Your task to perform on an android device: turn off improve location accuracy Image 0: 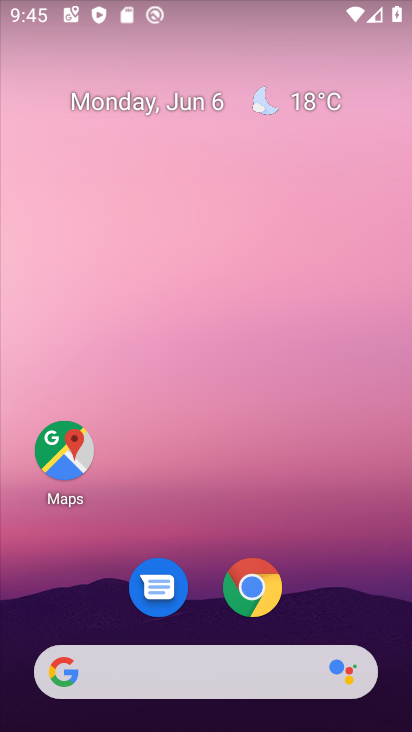
Step 0: drag from (343, 539) to (253, 110)
Your task to perform on an android device: turn off improve location accuracy Image 1: 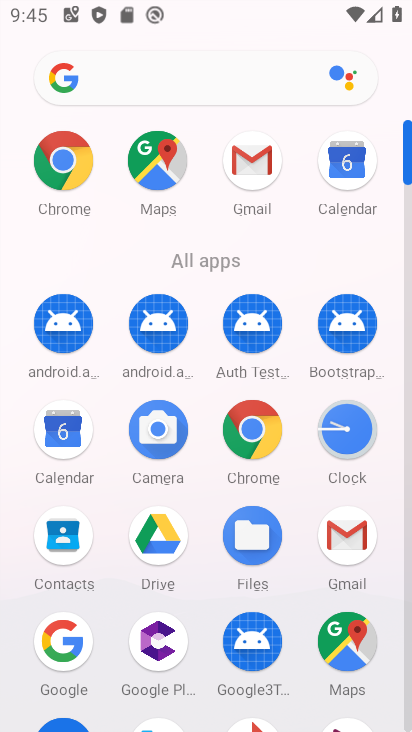
Step 1: click (406, 564)
Your task to perform on an android device: turn off improve location accuracy Image 2: 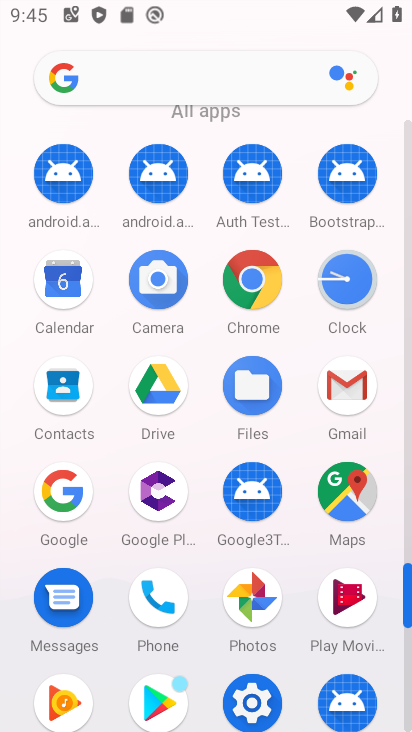
Step 2: click (407, 647)
Your task to perform on an android device: turn off improve location accuracy Image 3: 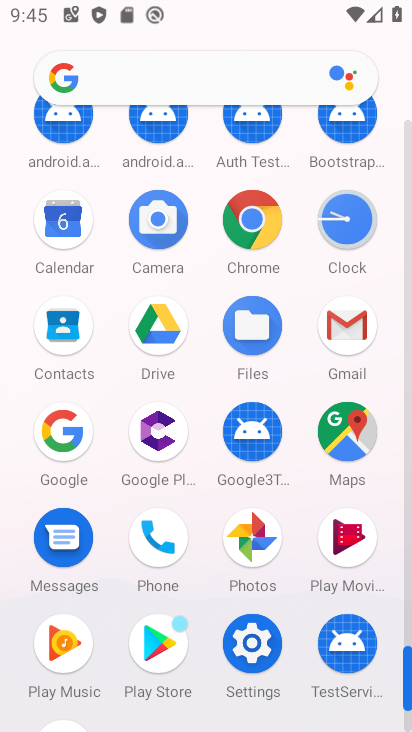
Step 3: click (255, 633)
Your task to perform on an android device: turn off improve location accuracy Image 4: 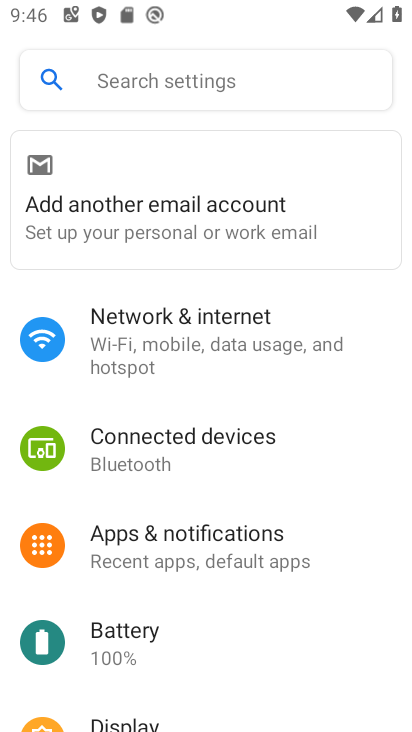
Step 4: drag from (268, 617) to (240, 208)
Your task to perform on an android device: turn off improve location accuracy Image 5: 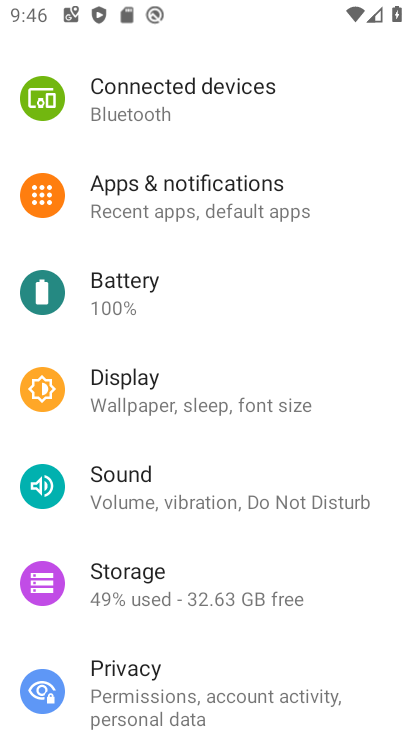
Step 5: drag from (209, 677) to (204, 250)
Your task to perform on an android device: turn off improve location accuracy Image 6: 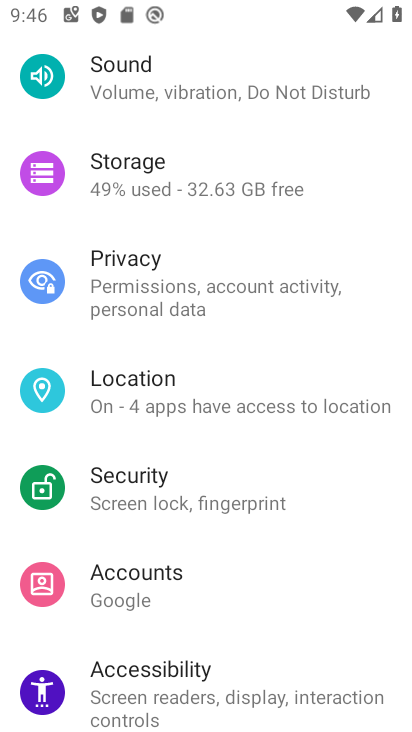
Step 6: click (186, 417)
Your task to perform on an android device: turn off improve location accuracy Image 7: 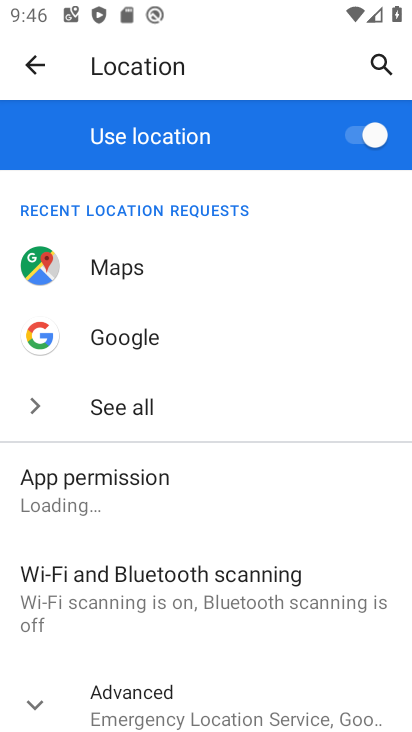
Step 7: click (225, 694)
Your task to perform on an android device: turn off improve location accuracy Image 8: 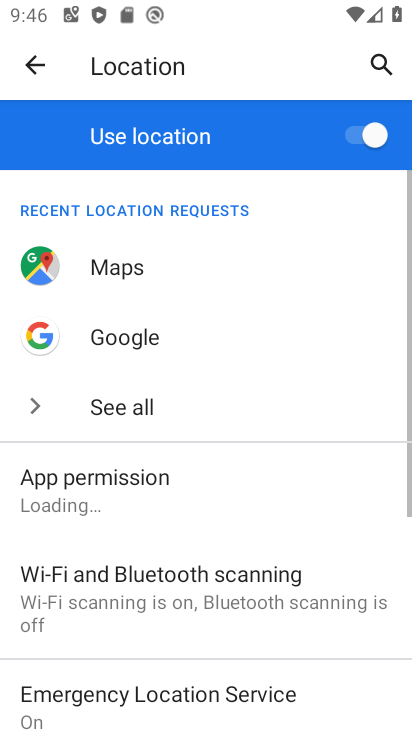
Step 8: drag from (224, 680) to (235, 251)
Your task to perform on an android device: turn off improve location accuracy Image 9: 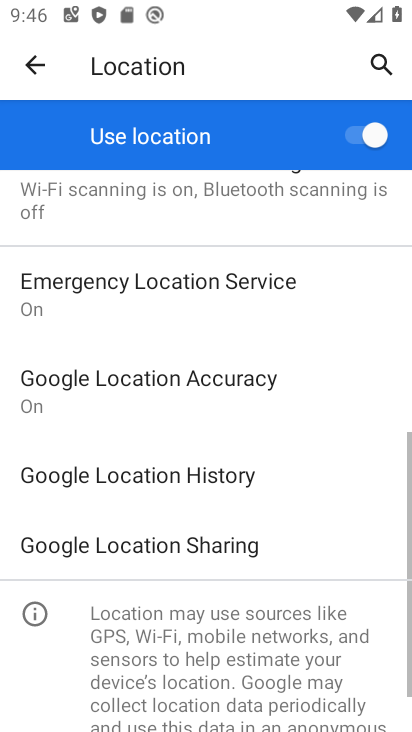
Step 9: click (179, 382)
Your task to perform on an android device: turn off improve location accuracy Image 10: 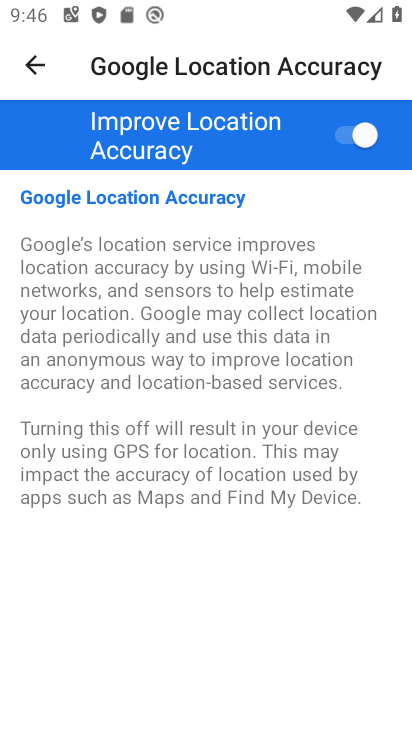
Step 10: click (353, 133)
Your task to perform on an android device: turn off improve location accuracy Image 11: 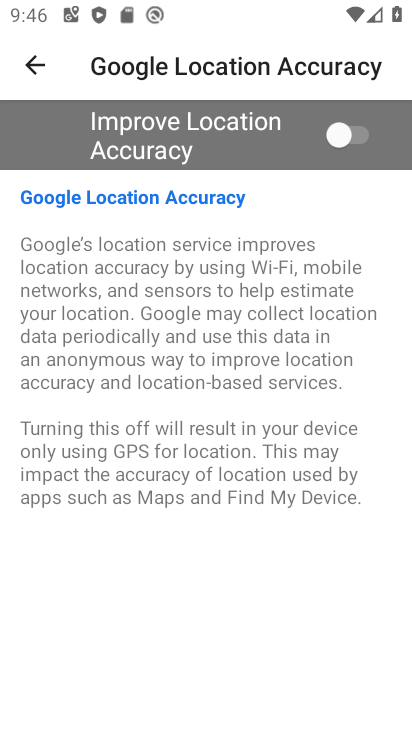
Step 11: task complete